Your task to perform on an android device: refresh tabs in the chrome app Image 0: 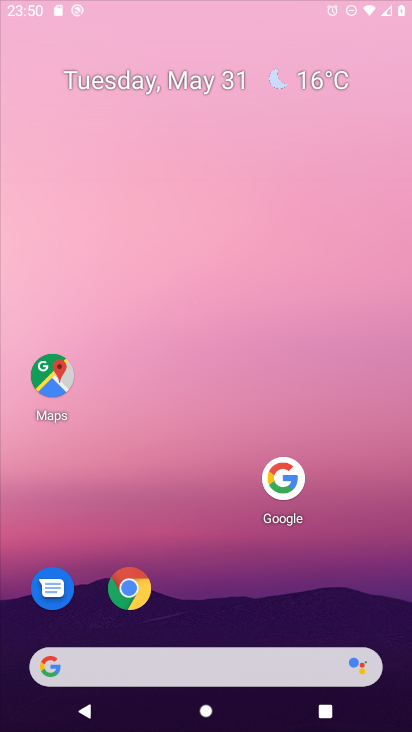
Step 0: press home button
Your task to perform on an android device: refresh tabs in the chrome app Image 1: 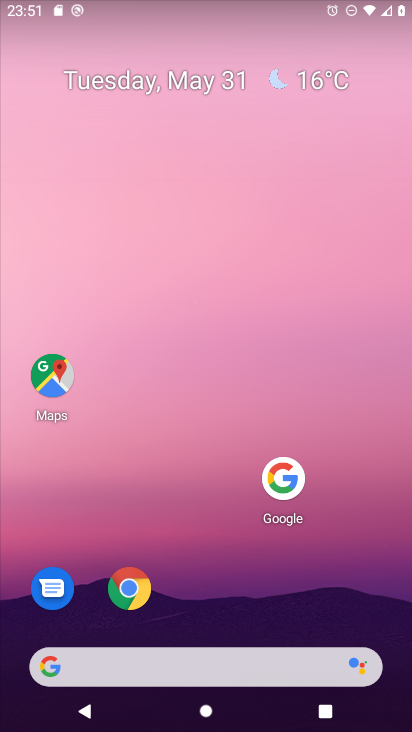
Step 1: click (140, 595)
Your task to perform on an android device: refresh tabs in the chrome app Image 2: 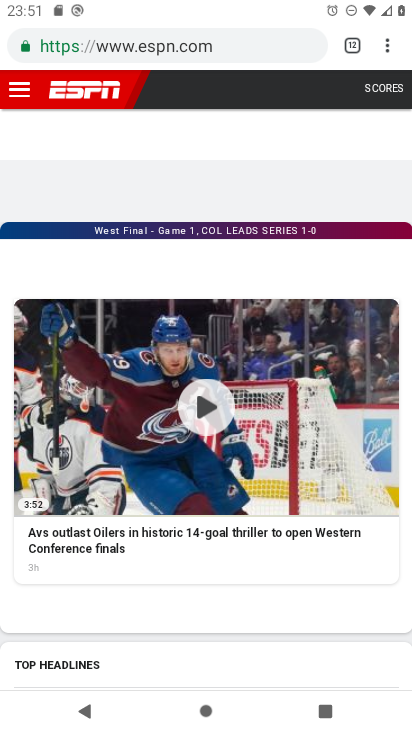
Step 2: click (387, 58)
Your task to perform on an android device: refresh tabs in the chrome app Image 3: 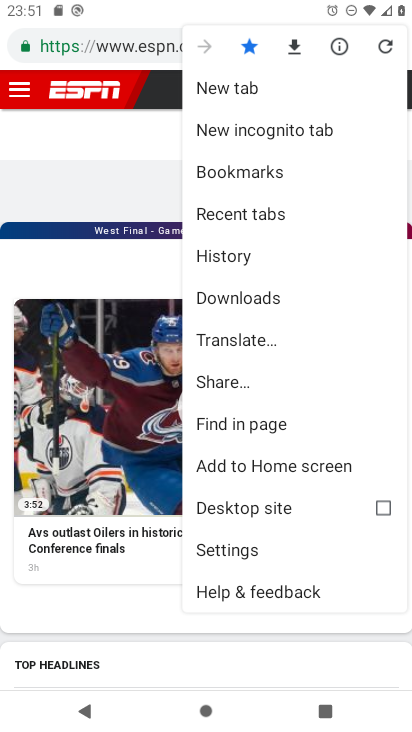
Step 3: click (379, 44)
Your task to perform on an android device: refresh tabs in the chrome app Image 4: 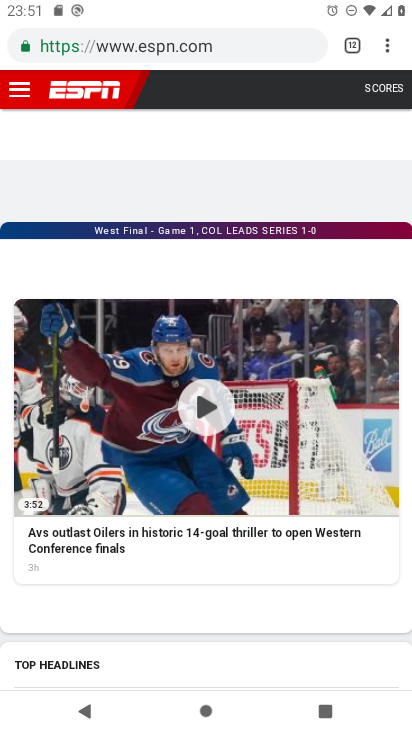
Step 4: task complete